Your task to perform on an android device: What's the weather? Image 0: 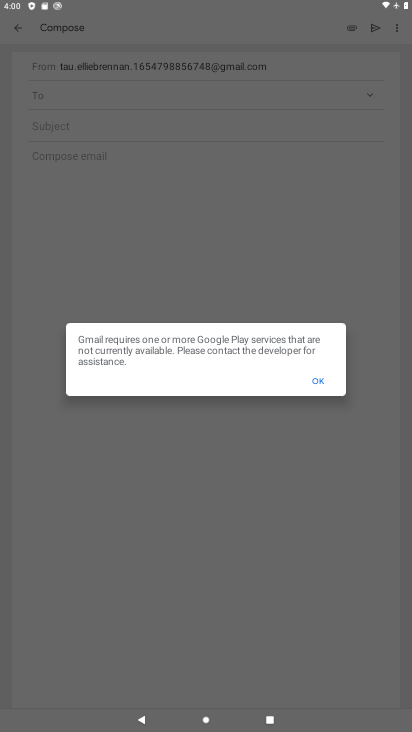
Step 0: drag from (259, 638) to (199, 262)
Your task to perform on an android device: What's the weather? Image 1: 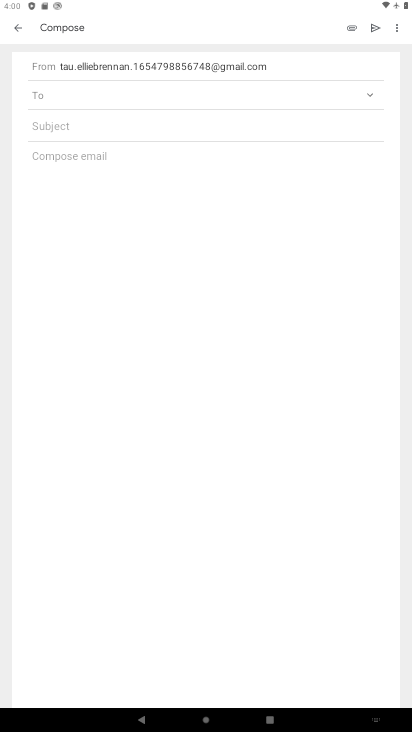
Step 1: press home button
Your task to perform on an android device: What's the weather? Image 2: 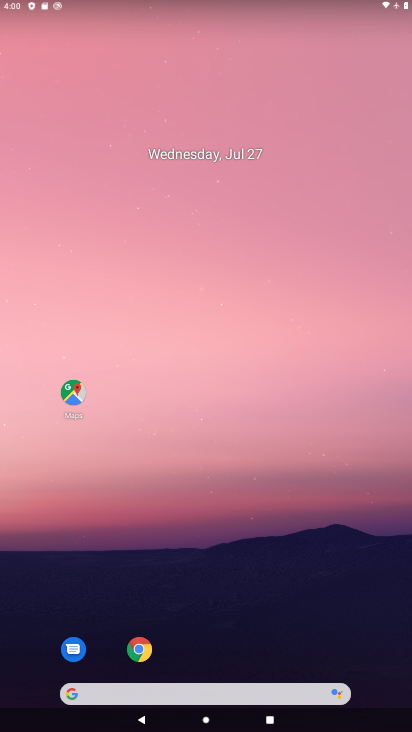
Step 2: drag from (265, 651) to (198, 55)
Your task to perform on an android device: What's the weather? Image 3: 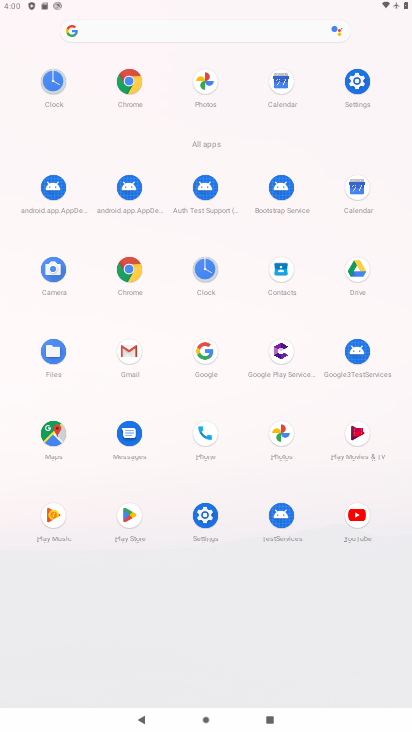
Step 3: click (132, 84)
Your task to perform on an android device: What's the weather? Image 4: 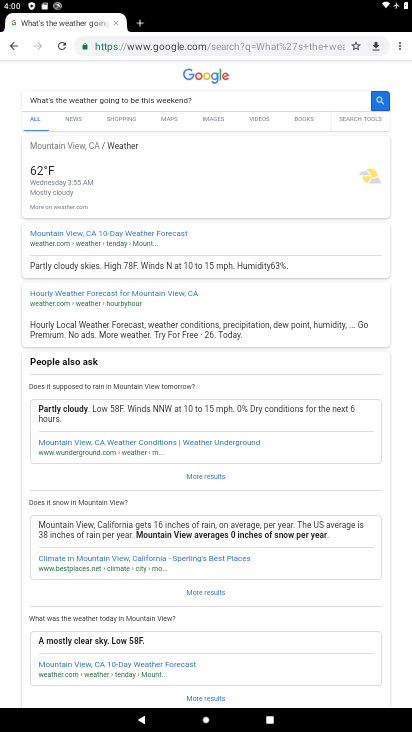
Step 4: click (178, 47)
Your task to perform on an android device: What's the weather? Image 5: 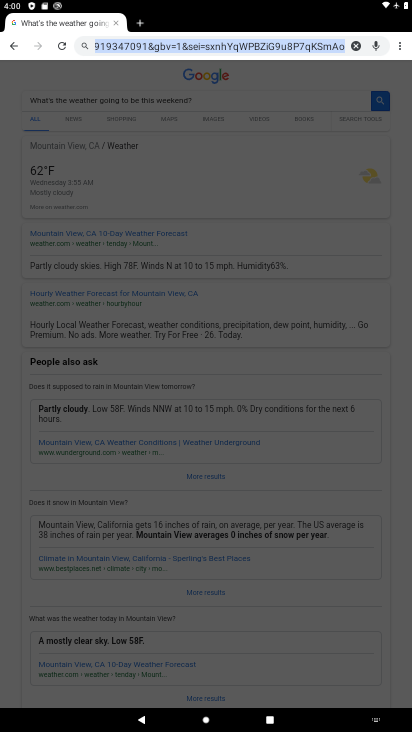
Step 5: type "What's the weather?"
Your task to perform on an android device: What's the weather? Image 6: 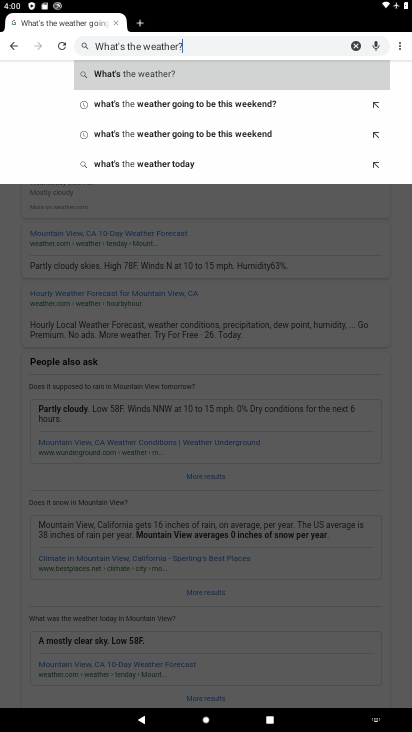
Step 6: click (224, 69)
Your task to perform on an android device: What's the weather? Image 7: 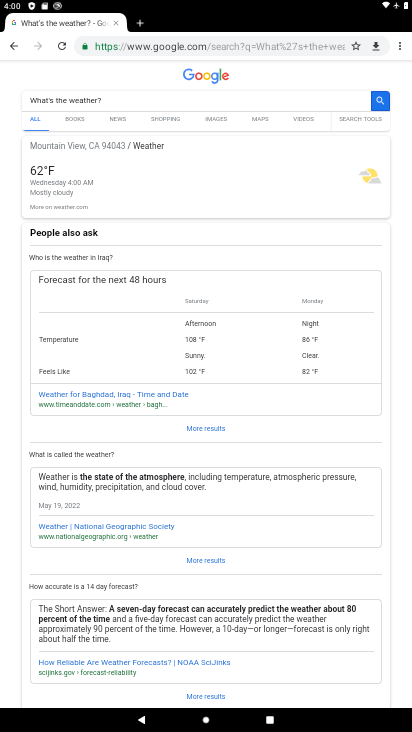
Step 7: task complete